Your task to perform on an android device: Add "energizer triple a" to the cart on newegg.com Image 0: 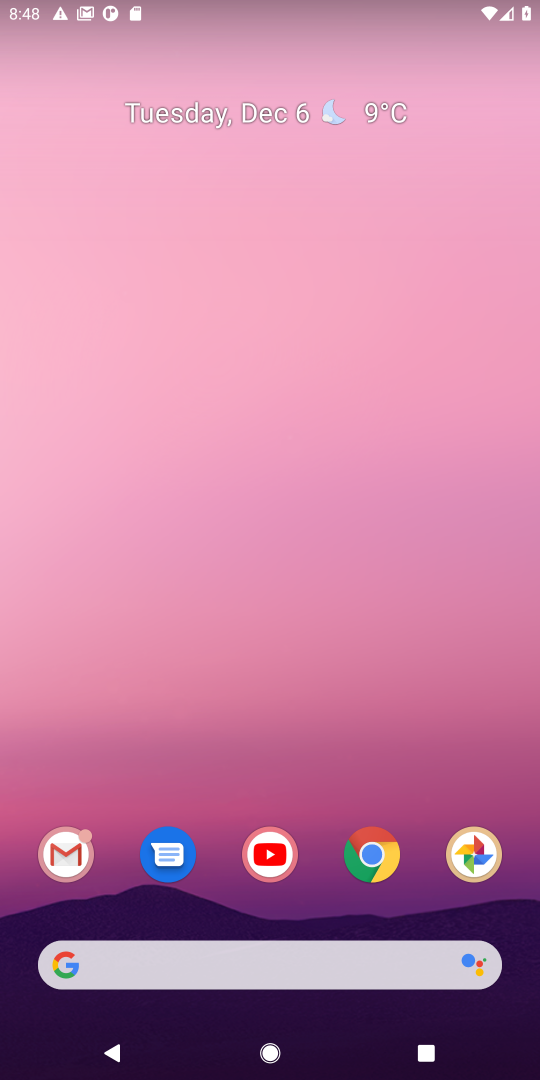
Step 0: click (370, 844)
Your task to perform on an android device: Add "energizer triple a" to the cart on newegg.com Image 1: 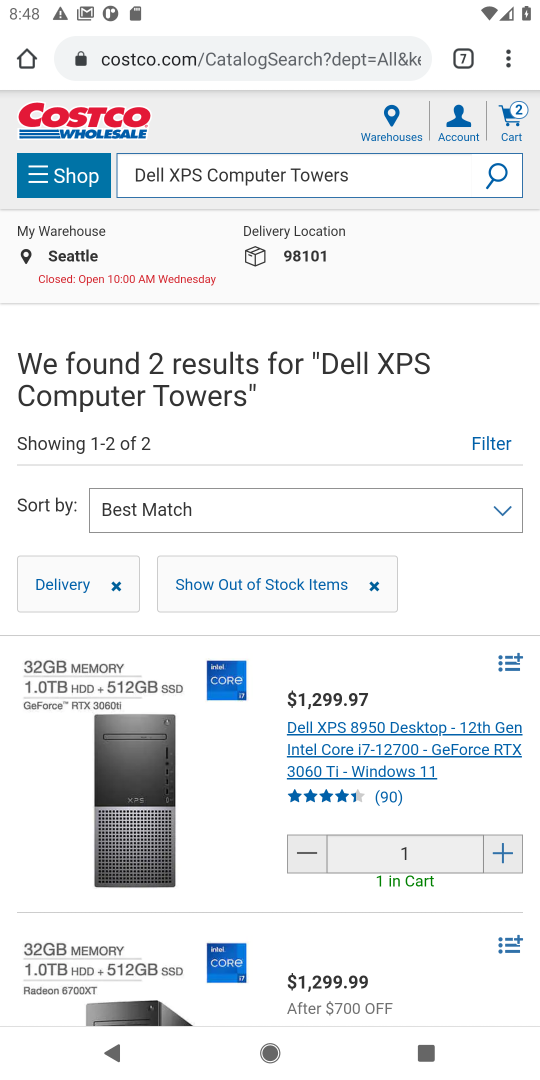
Step 1: click (468, 59)
Your task to perform on an android device: Add "energizer triple a" to the cart on newegg.com Image 2: 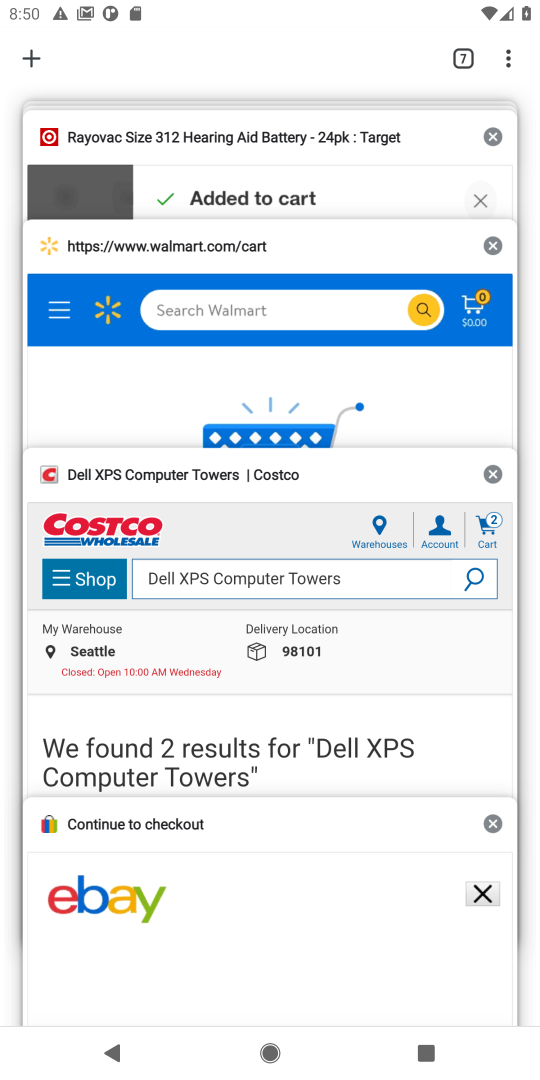
Step 2: drag from (267, 188) to (251, 632)
Your task to perform on an android device: Add "energizer triple a" to the cart on newegg.com Image 3: 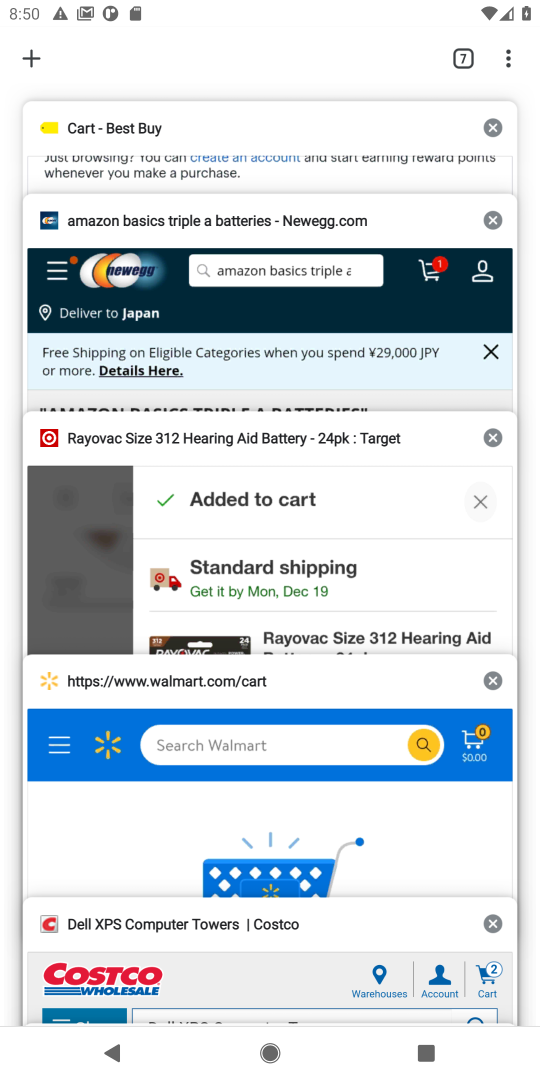
Step 3: click (235, 252)
Your task to perform on an android device: Add "energizer triple a" to the cart on newegg.com Image 4: 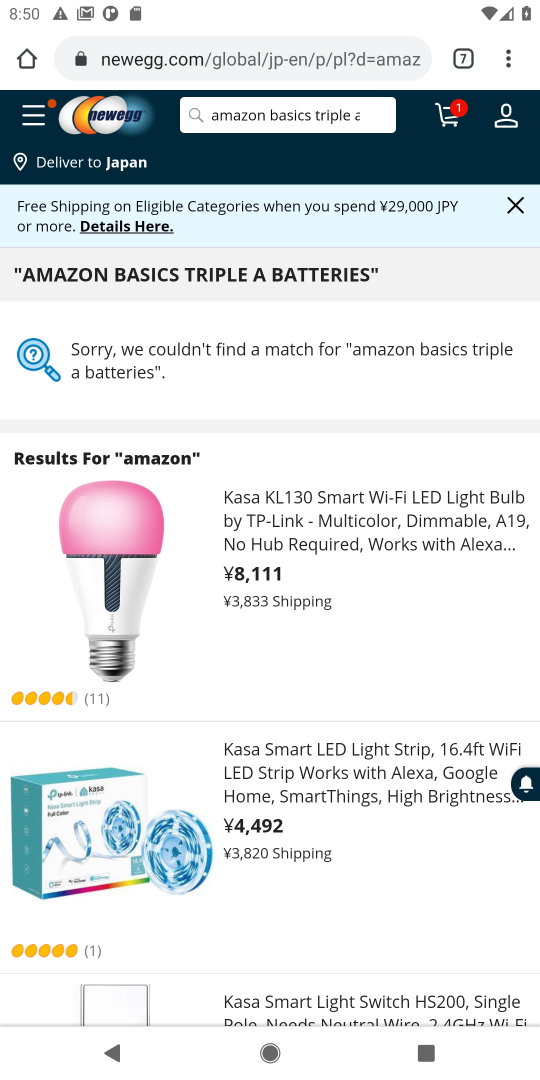
Step 4: click (253, 117)
Your task to perform on an android device: Add "energizer triple a" to the cart on newegg.com Image 5: 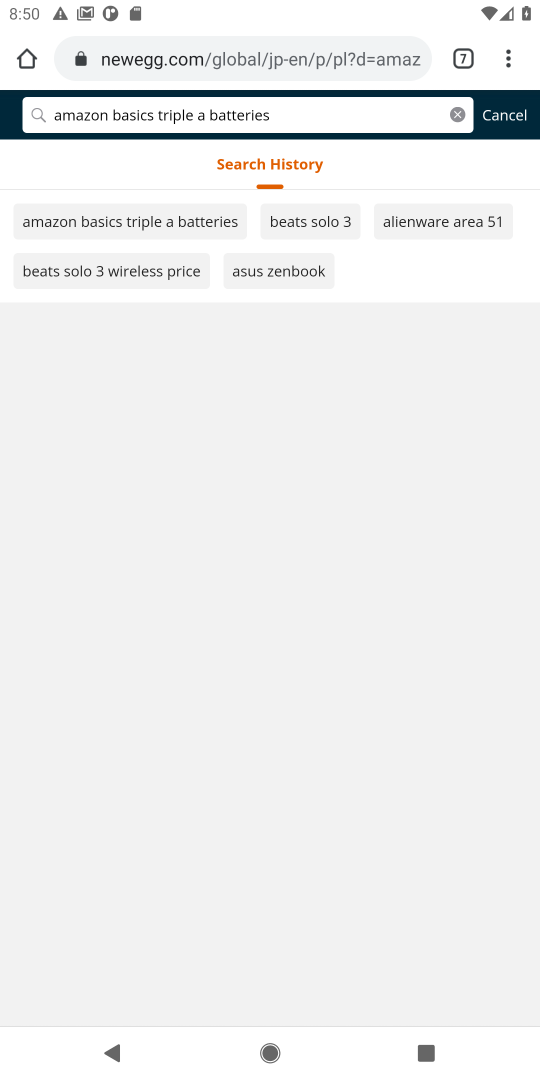
Step 5: click (253, 117)
Your task to perform on an android device: Add "energizer triple a" to the cart on newegg.com Image 6: 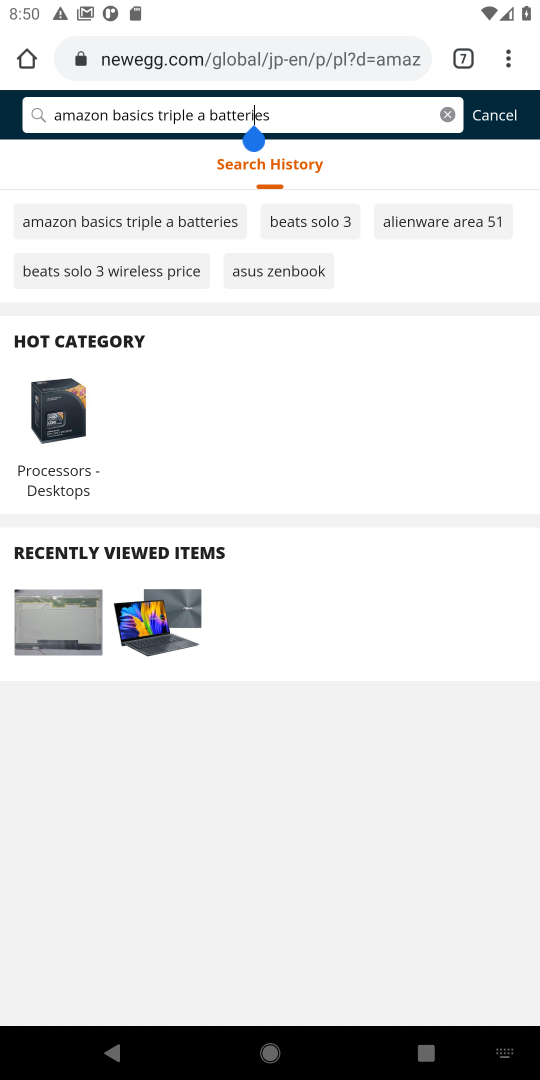
Step 6: click (452, 114)
Your task to perform on an android device: Add "energizer triple a" to the cart on newegg.com Image 7: 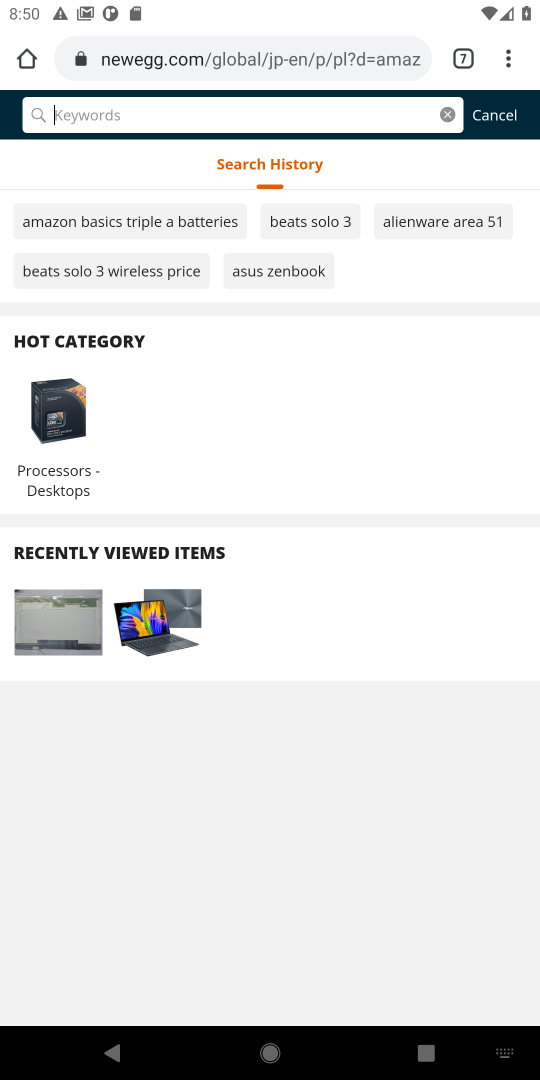
Step 7: type "energizer triple a"
Your task to perform on an android device: Add "energizer triple a" to the cart on newegg.com Image 8: 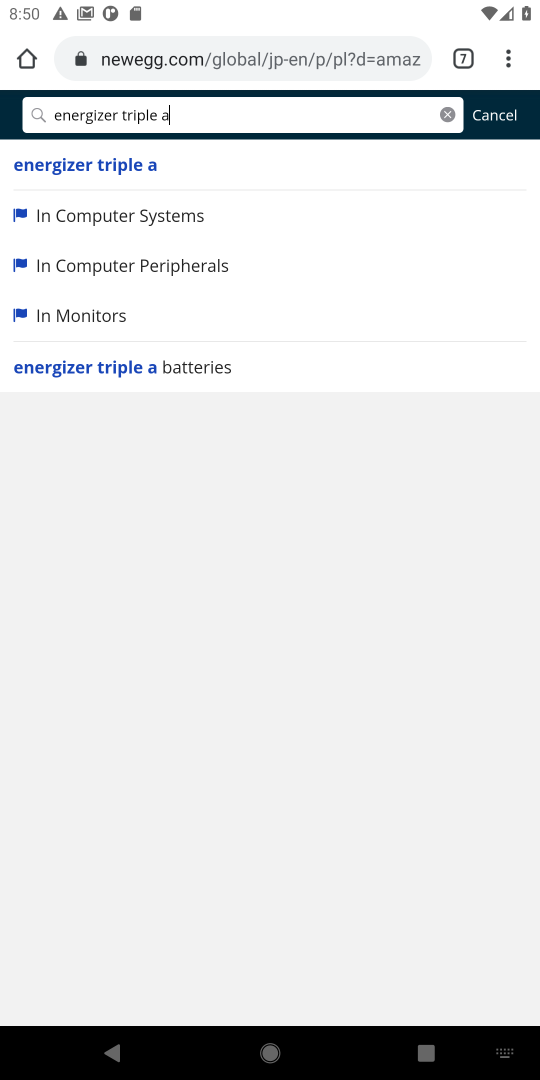
Step 8: click (140, 158)
Your task to perform on an android device: Add "energizer triple a" to the cart on newegg.com Image 9: 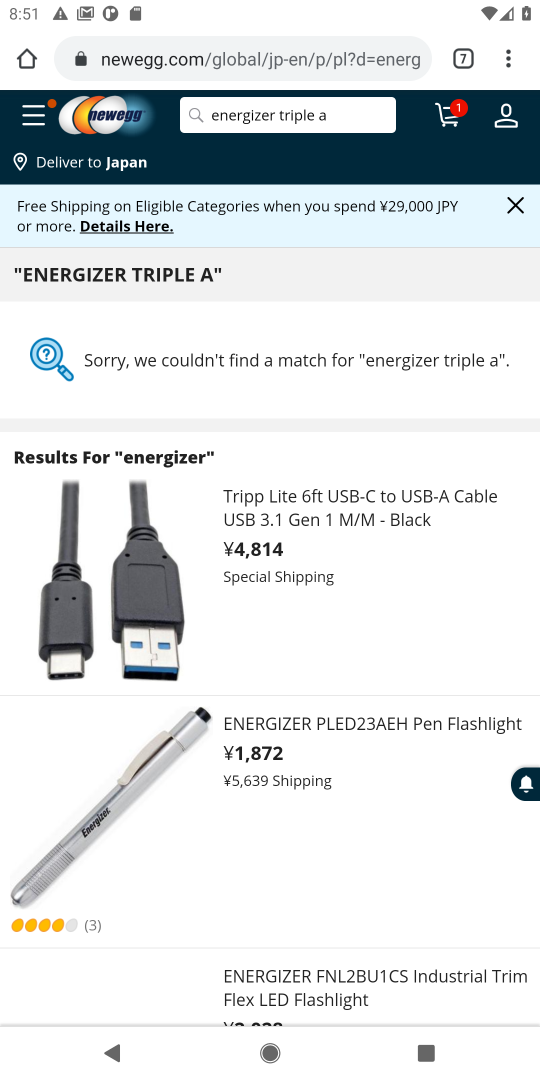
Step 9: task complete